Your task to perform on an android device: Go to Wikipedia Image 0: 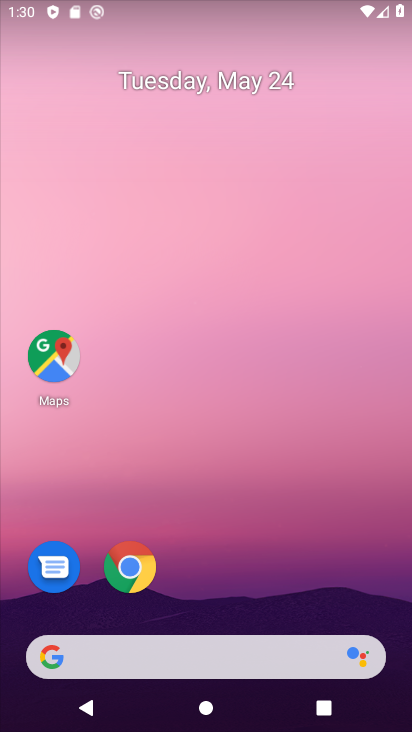
Step 0: drag from (216, 603) to (260, 297)
Your task to perform on an android device: Go to Wikipedia Image 1: 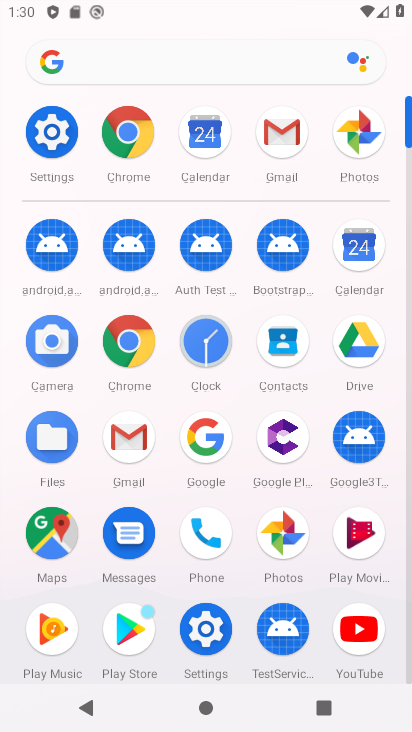
Step 1: click (61, 139)
Your task to perform on an android device: Go to Wikipedia Image 2: 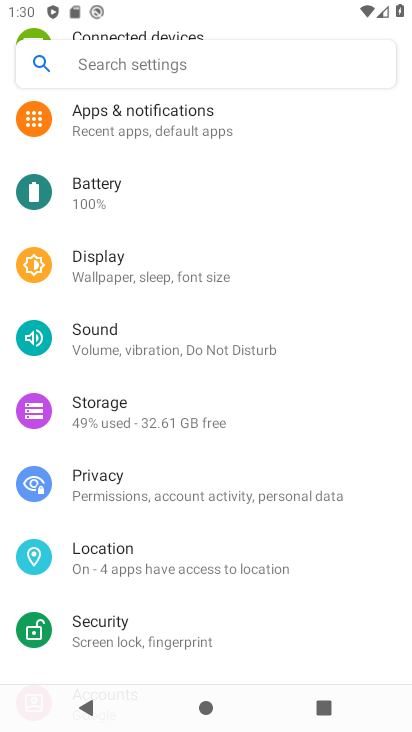
Step 2: drag from (163, 540) to (191, 330)
Your task to perform on an android device: Go to Wikipedia Image 3: 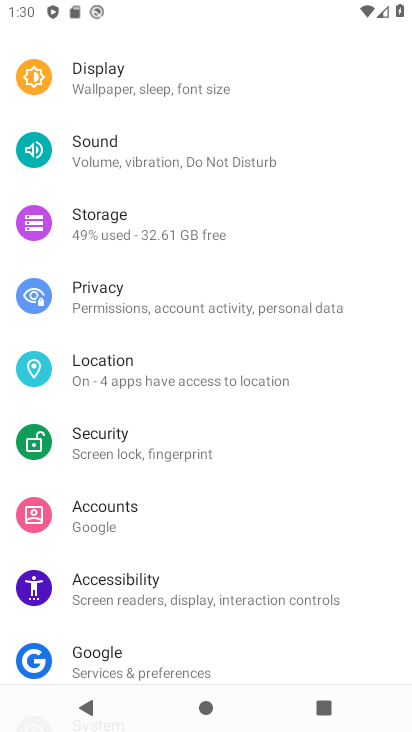
Step 3: press home button
Your task to perform on an android device: Go to Wikipedia Image 4: 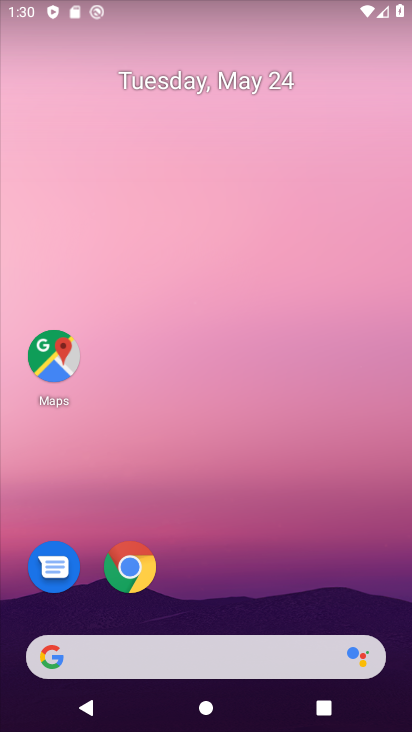
Step 4: drag from (222, 618) to (225, 83)
Your task to perform on an android device: Go to Wikipedia Image 5: 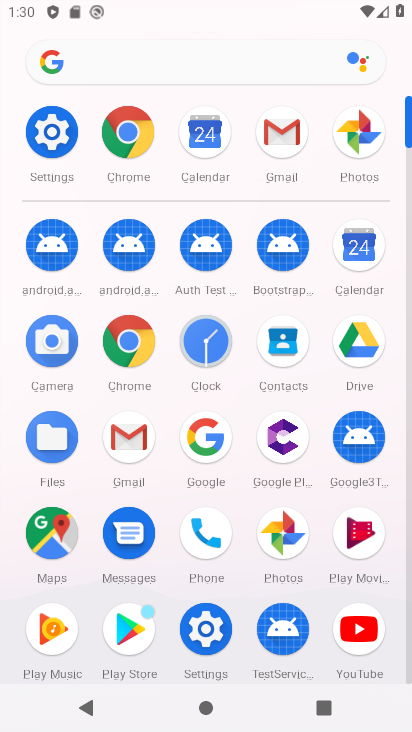
Step 5: click (130, 143)
Your task to perform on an android device: Go to Wikipedia Image 6: 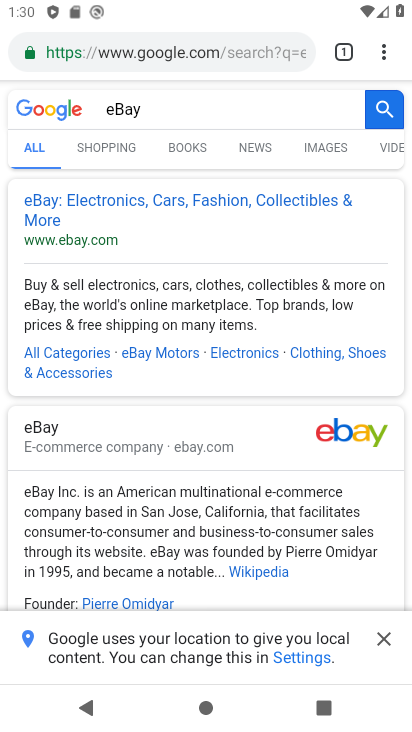
Step 6: click (224, 47)
Your task to perform on an android device: Go to Wikipedia Image 7: 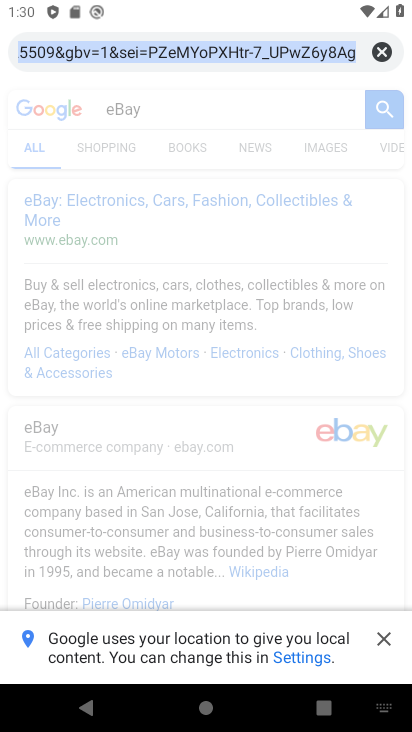
Step 7: type "wikipedia"
Your task to perform on an android device: Go to Wikipedia Image 8: 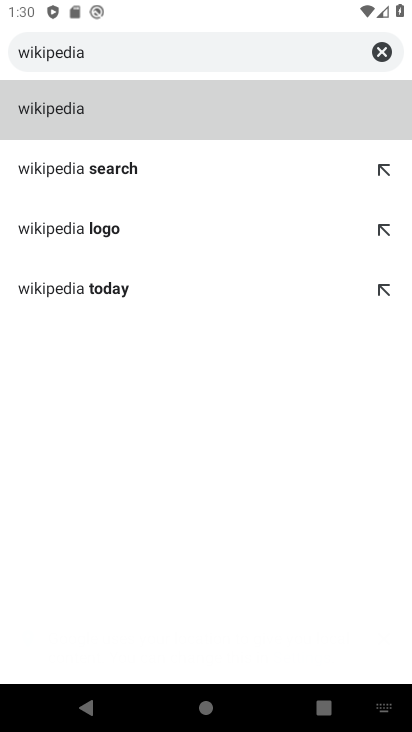
Step 8: click (82, 116)
Your task to perform on an android device: Go to Wikipedia Image 9: 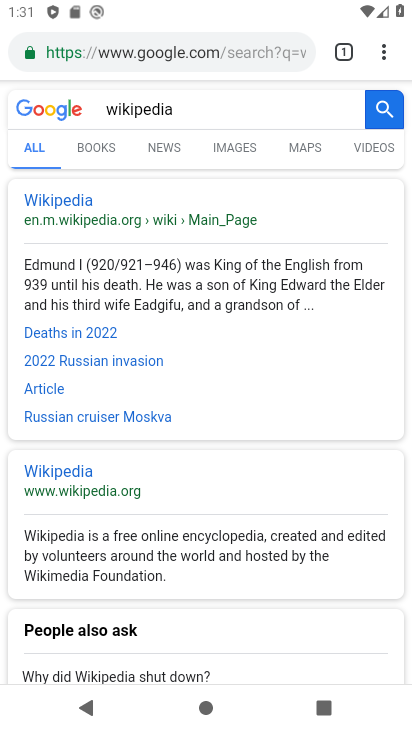
Step 9: task complete